Your task to perform on an android device: Open the stopwatch Image 0: 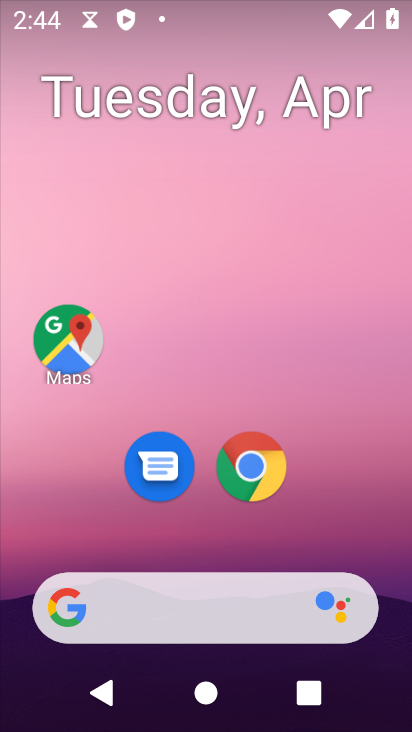
Step 0: drag from (365, 523) to (244, 0)
Your task to perform on an android device: Open the stopwatch Image 1: 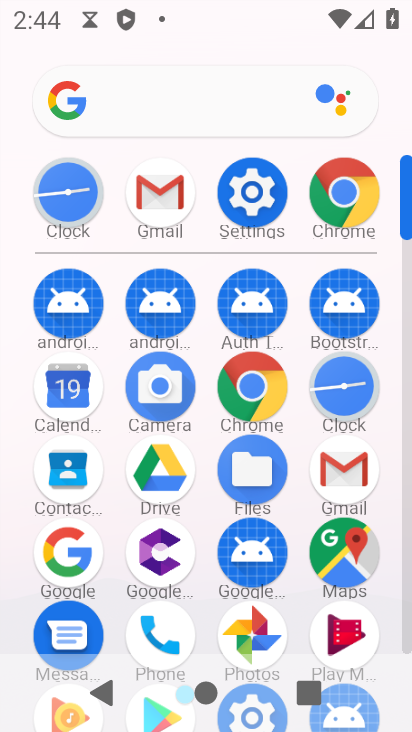
Step 1: drag from (7, 502) to (11, 305)
Your task to perform on an android device: Open the stopwatch Image 2: 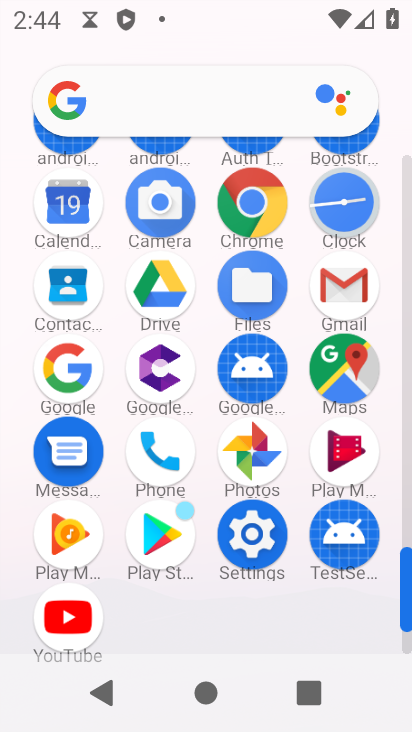
Step 2: drag from (27, 234) to (12, 364)
Your task to perform on an android device: Open the stopwatch Image 3: 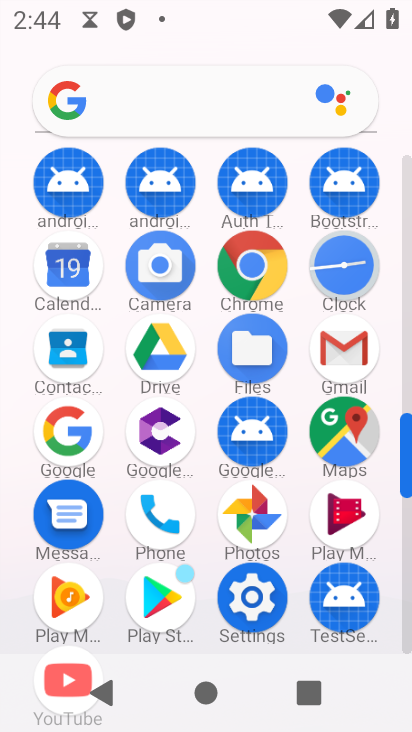
Step 3: drag from (18, 392) to (16, 228)
Your task to perform on an android device: Open the stopwatch Image 4: 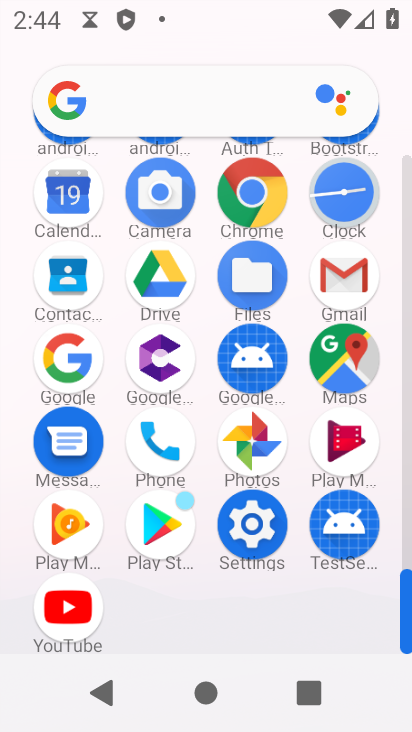
Step 4: click (345, 206)
Your task to perform on an android device: Open the stopwatch Image 5: 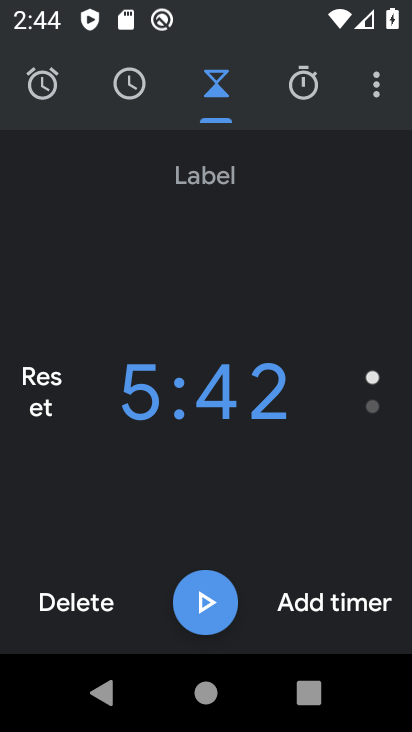
Step 5: click (308, 81)
Your task to perform on an android device: Open the stopwatch Image 6: 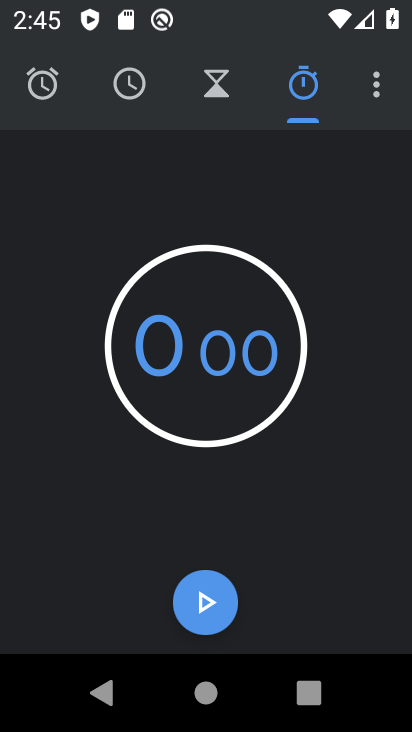
Step 6: task complete